Your task to perform on an android device: Go to internet settings Image 0: 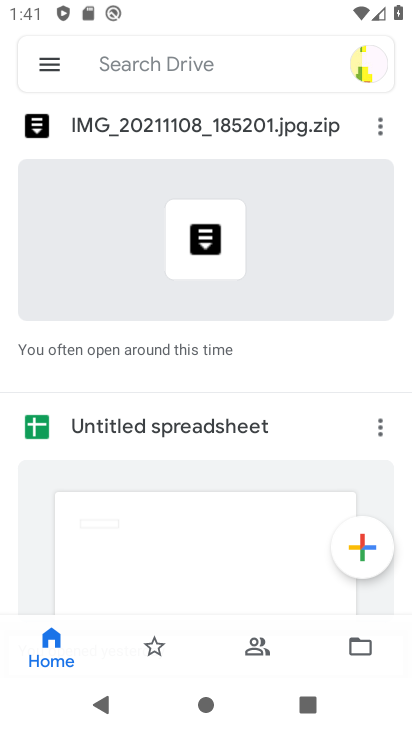
Step 0: press home button
Your task to perform on an android device: Go to internet settings Image 1: 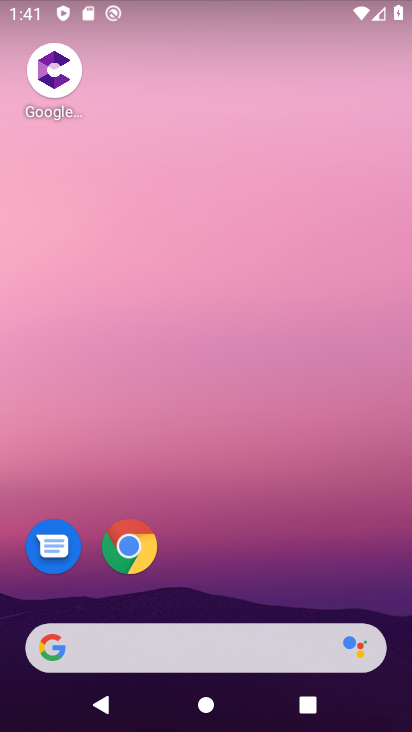
Step 1: drag from (235, 479) to (298, 35)
Your task to perform on an android device: Go to internet settings Image 2: 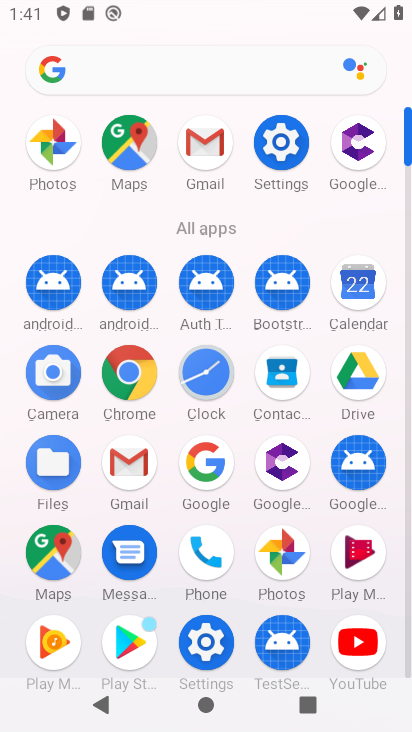
Step 2: click (274, 159)
Your task to perform on an android device: Go to internet settings Image 3: 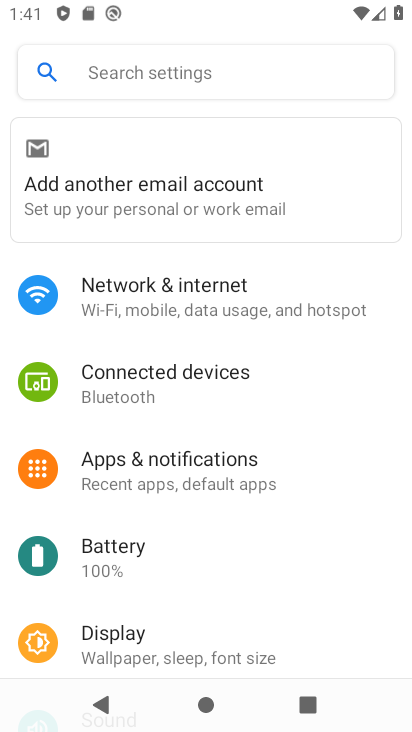
Step 3: click (271, 305)
Your task to perform on an android device: Go to internet settings Image 4: 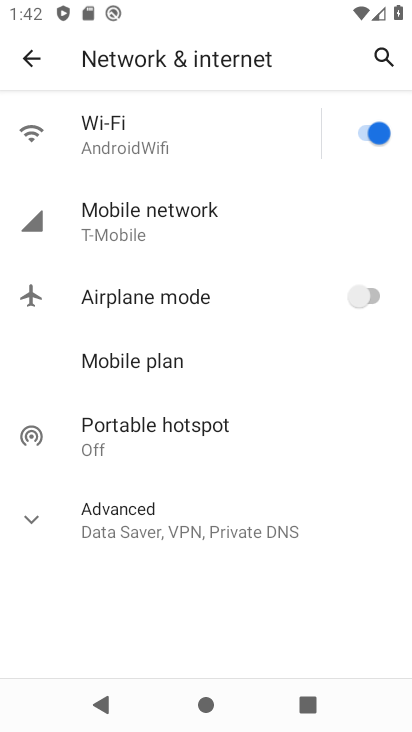
Step 4: click (233, 235)
Your task to perform on an android device: Go to internet settings Image 5: 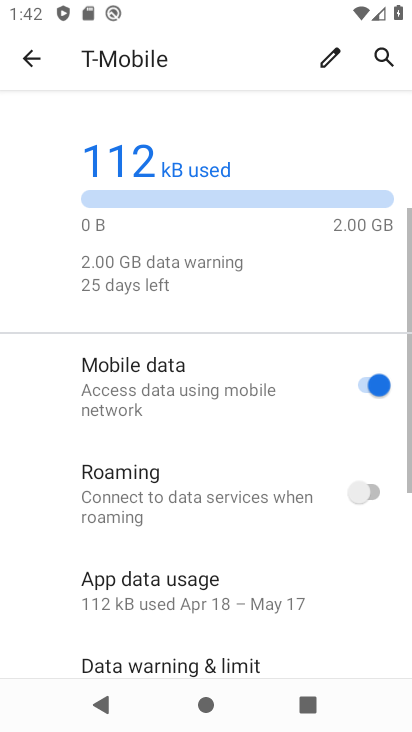
Step 5: task complete